Your task to perform on an android device: delete browsing data in the chrome app Image 0: 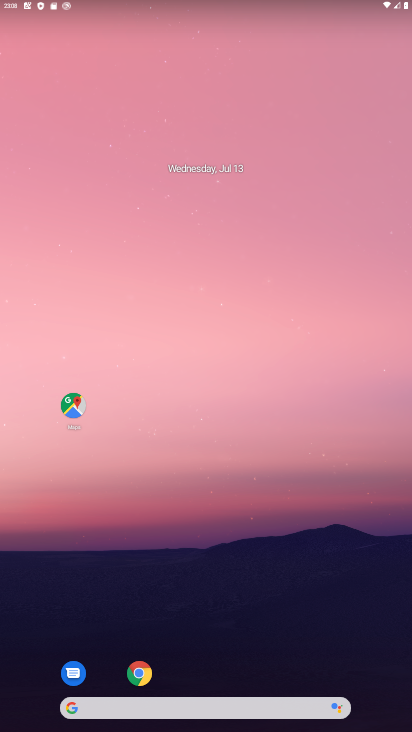
Step 0: click (140, 671)
Your task to perform on an android device: delete browsing data in the chrome app Image 1: 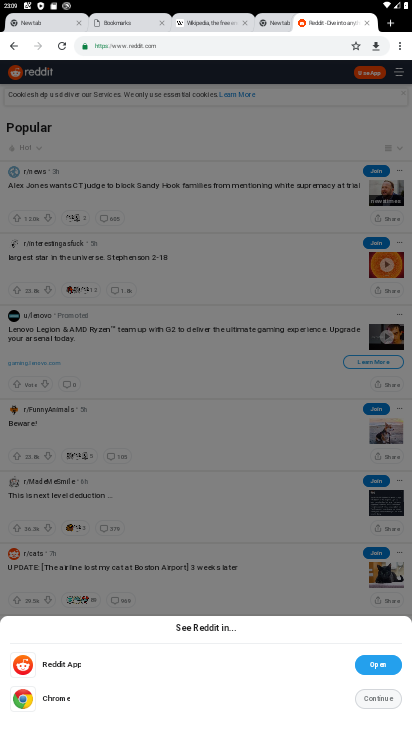
Step 1: click (402, 47)
Your task to perform on an android device: delete browsing data in the chrome app Image 2: 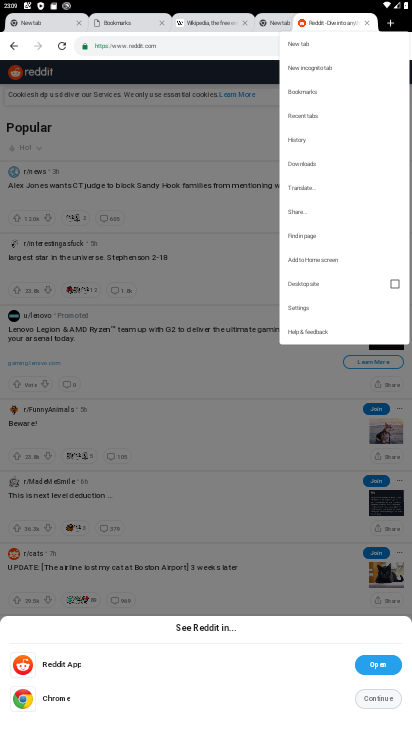
Step 2: click (304, 139)
Your task to perform on an android device: delete browsing data in the chrome app Image 3: 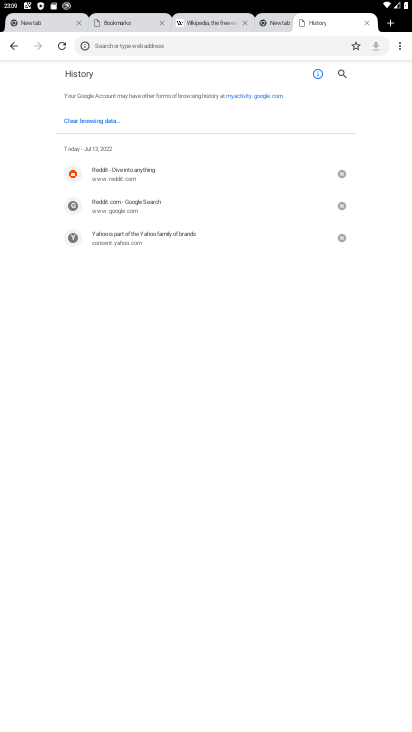
Step 3: click (69, 123)
Your task to perform on an android device: delete browsing data in the chrome app Image 4: 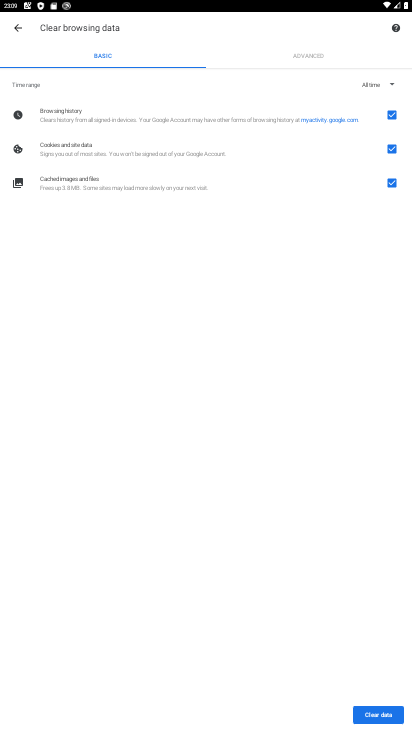
Step 4: click (377, 706)
Your task to perform on an android device: delete browsing data in the chrome app Image 5: 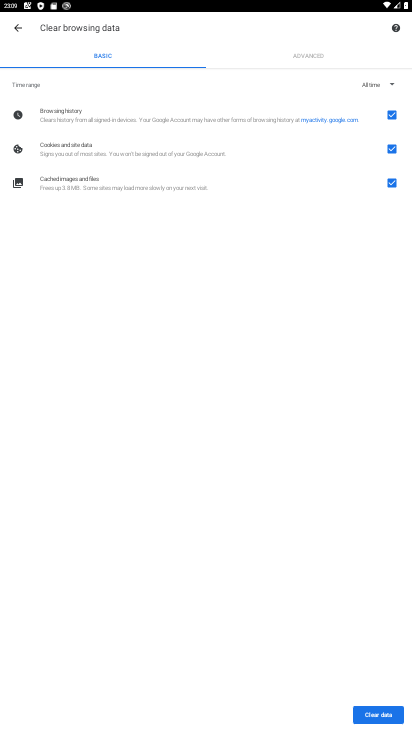
Step 5: click (387, 713)
Your task to perform on an android device: delete browsing data in the chrome app Image 6: 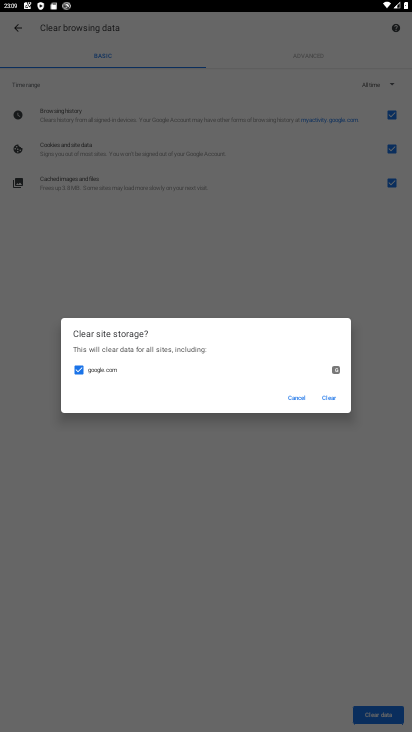
Step 6: click (326, 393)
Your task to perform on an android device: delete browsing data in the chrome app Image 7: 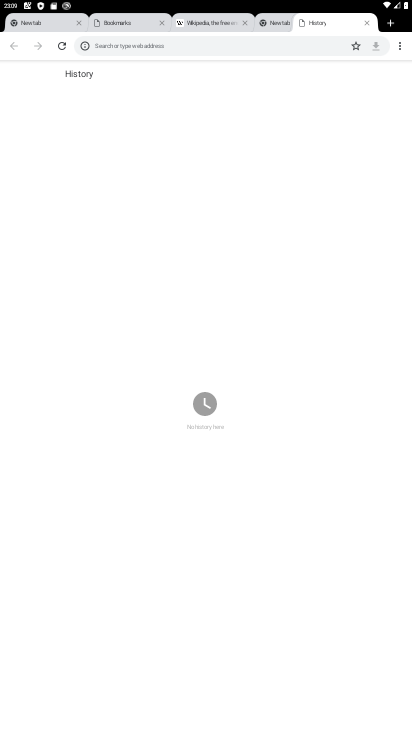
Step 7: task complete